Your task to perform on an android device: Open sound settings Image 0: 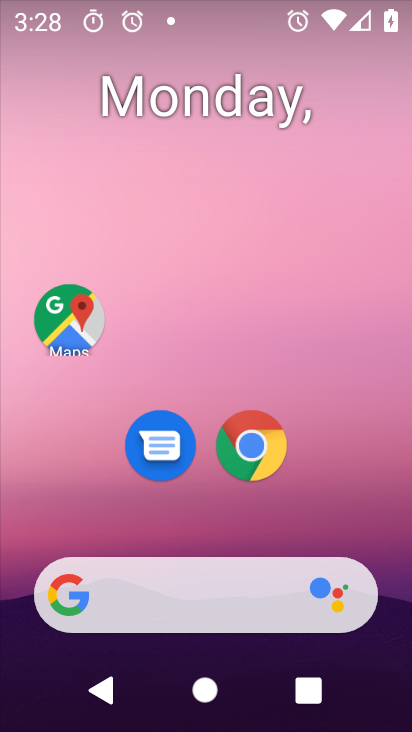
Step 0: drag from (185, 587) to (145, 54)
Your task to perform on an android device: Open sound settings Image 1: 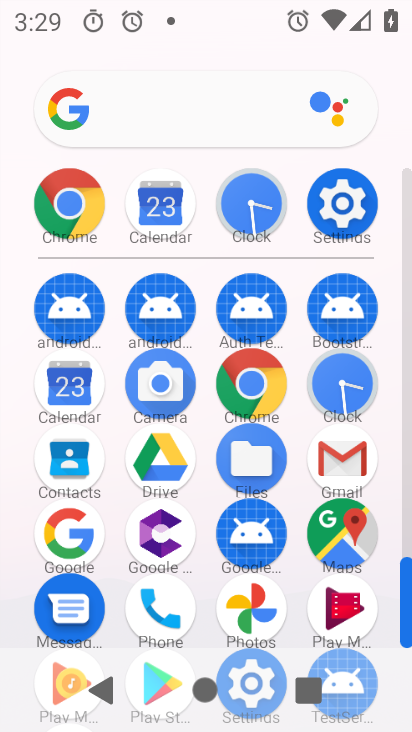
Step 1: click (370, 188)
Your task to perform on an android device: Open sound settings Image 2: 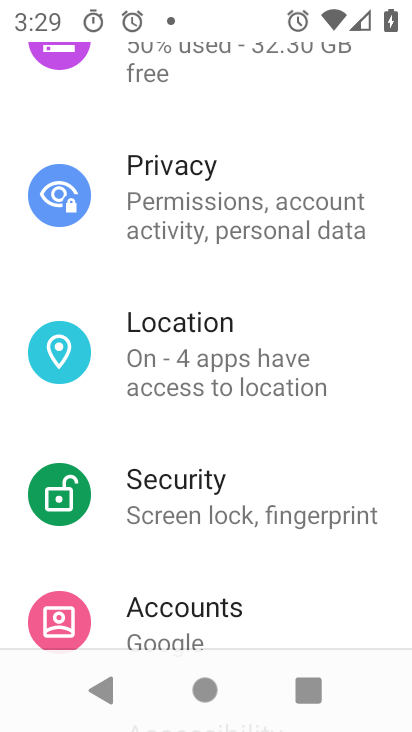
Step 2: drag from (174, 168) to (177, 497)
Your task to perform on an android device: Open sound settings Image 3: 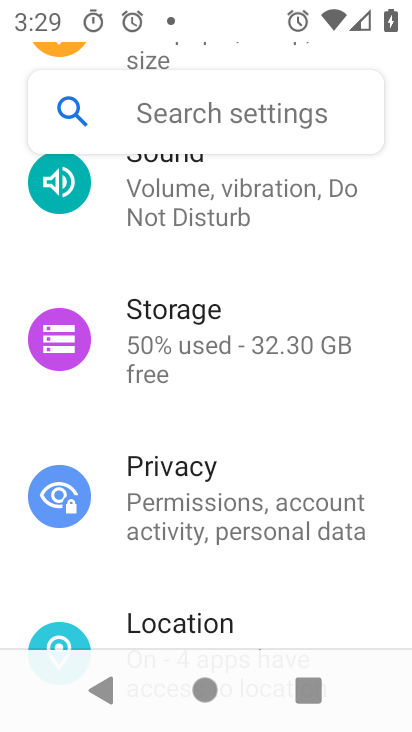
Step 3: click (183, 213)
Your task to perform on an android device: Open sound settings Image 4: 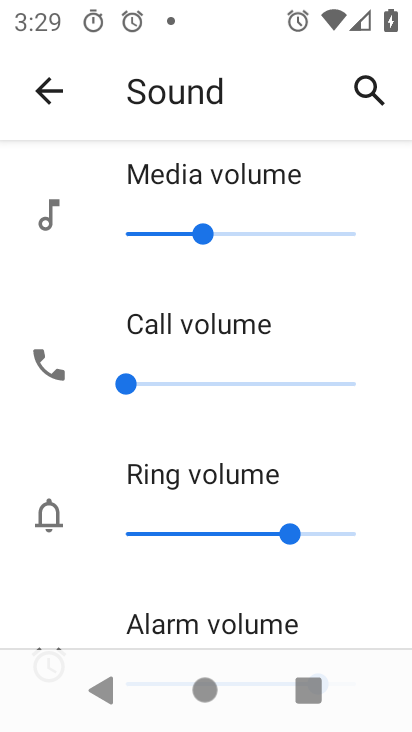
Step 4: task complete